Your task to perform on an android device: Go to Reddit.com Image 0: 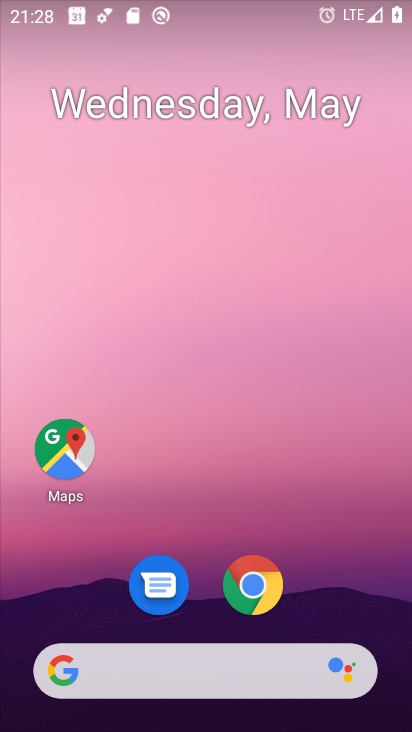
Step 0: click (270, 676)
Your task to perform on an android device: Go to Reddit.com Image 1: 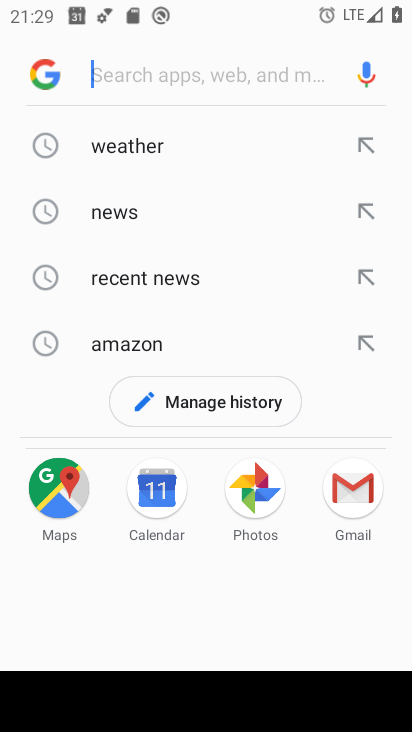
Step 1: type "reddit.com"
Your task to perform on an android device: Go to Reddit.com Image 2: 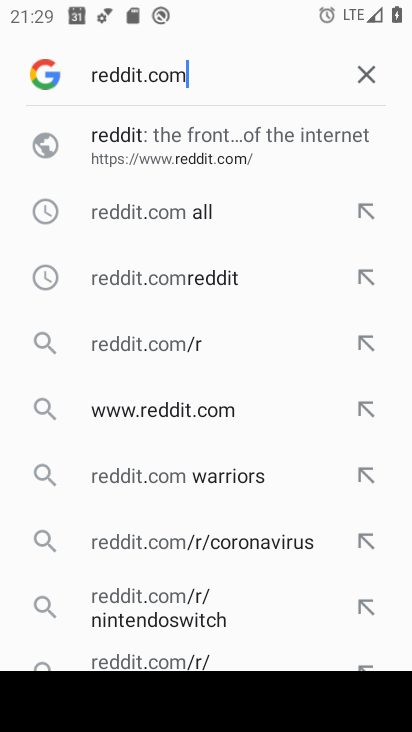
Step 2: click (95, 139)
Your task to perform on an android device: Go to Reddit.com Image 3: 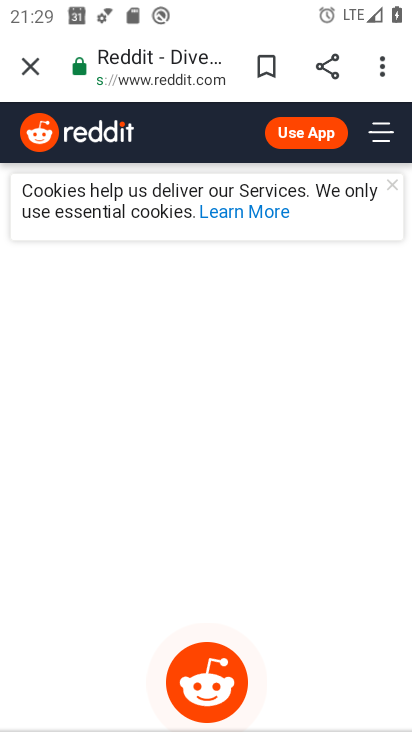
Step 3: task complete